Your task to perform on an android device: Open the phone app and click the voicemail tab. Image 0: 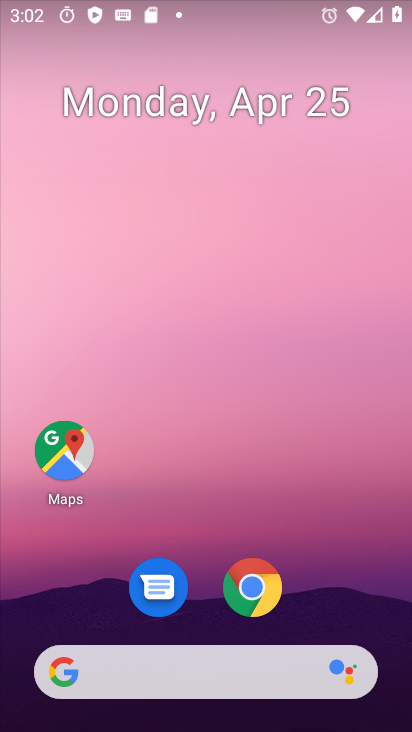
Step 0: drag from (333, 595) to (253, 175)
Your task to perform on an android device: Open the phone app and click the voicemail tab. Image 1: 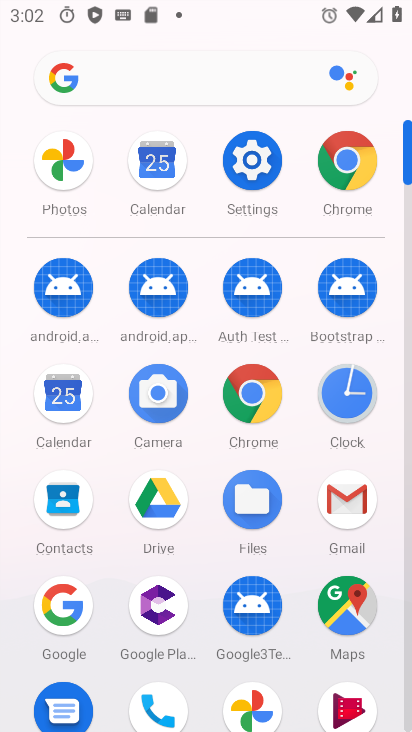
Step 1: drag from (196, 644) to (214, 284)
Your task to perform on an android device: Open the phone app and click the voicemail tab. Image 2: 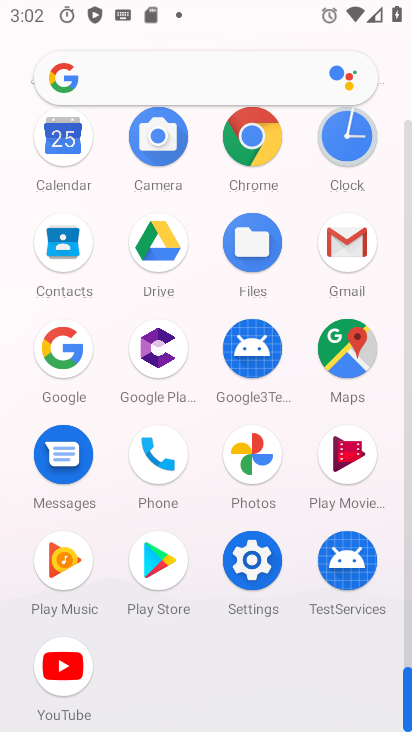
Step 2: click (162, 454)
Your task to perform on an android device: Open the phone app and click the voicemail tab. Image 3: 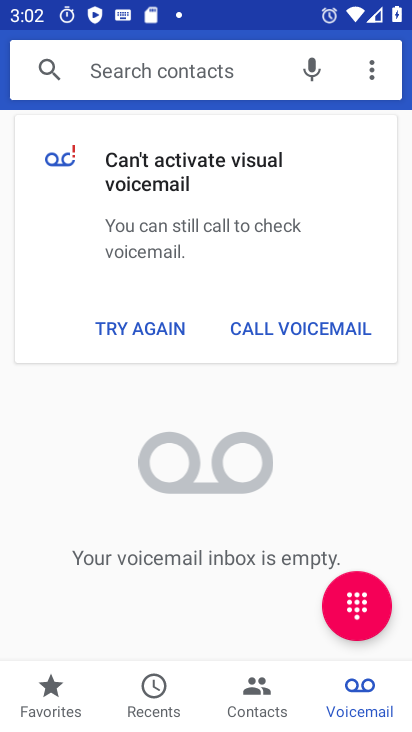
Step 3: task complete